Your task to perform on an android device: turn off picture-in-picture Image 0: 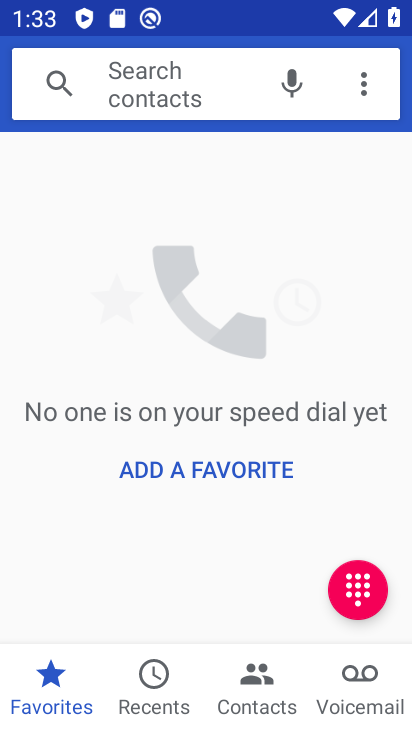
Step 0: press back button
Your task to perform on an android device: turn off picture-in-picture Image 1: 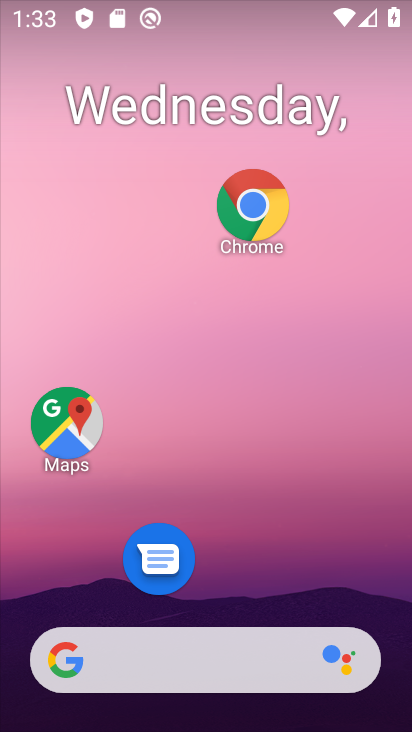
Step 1: click (253, 208)
Your task to perform on an android device: turn off picture-in-picture Image 2: 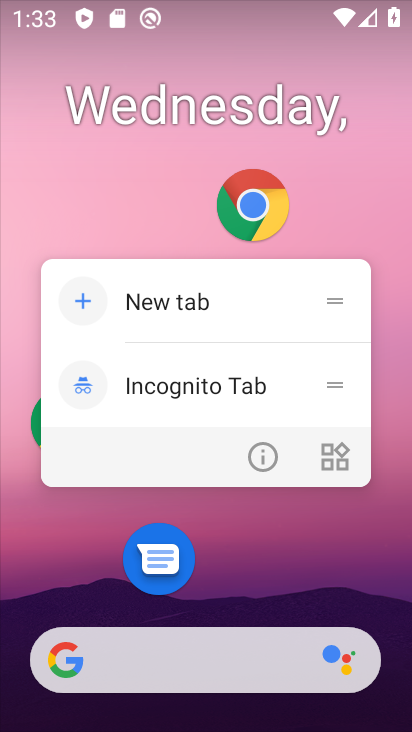
Step 2: click (263, 463)
Your task to perform on an android device: turn off picture-in-picture Image 3: 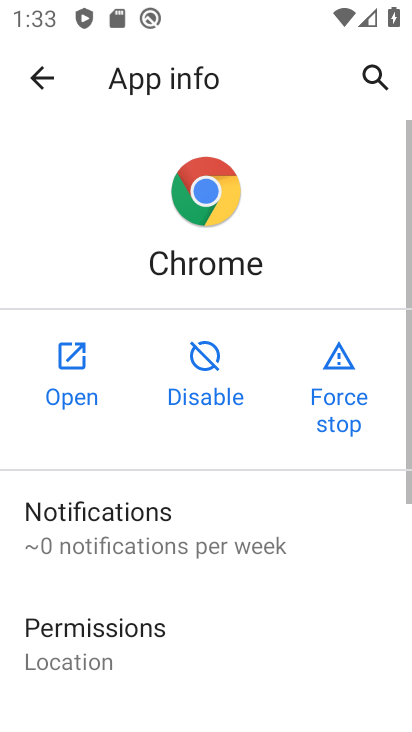
Step 3: drag from (152, 414) to (165, 319)
Your task to perform on an android device: turn off picture-in-picture Image 4: 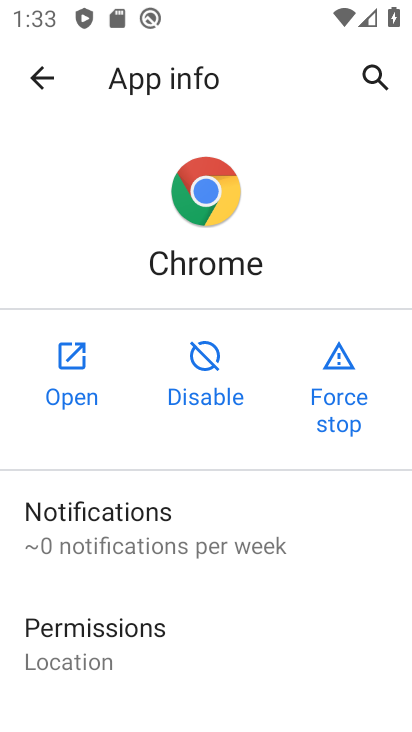
Step 4: drag from (128, 657) to (128, 268)
Your task to perform on an android device: turn off picture-in-picture Image 5: 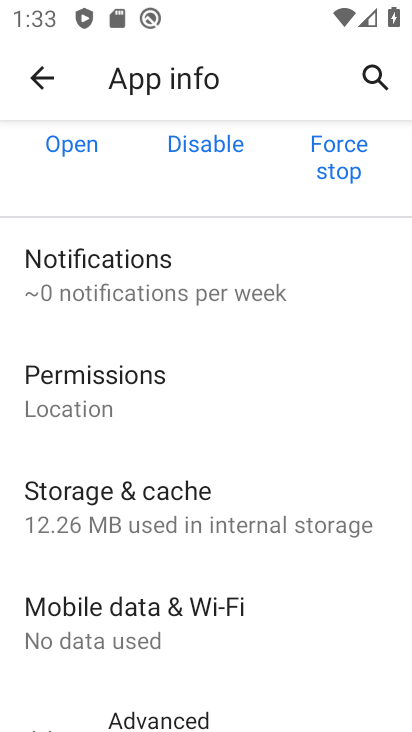
Step 5: drag from (125, 676) to (122, 321)
Your task to perform on an android device: turn off picture-in-picture Image 6: 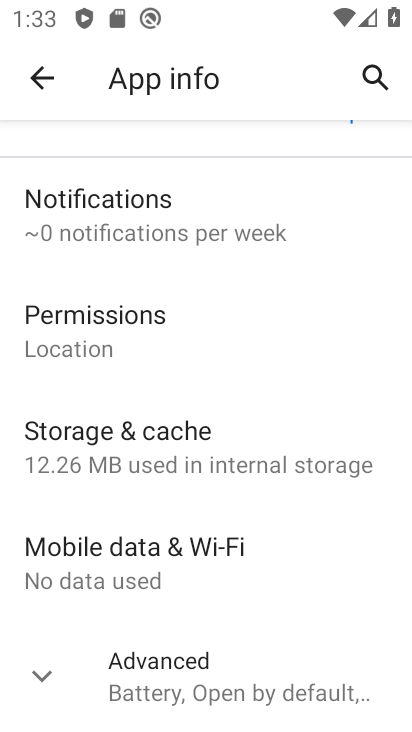
Step 6: click (130, 670)
Your task to perform on an android device: turn off picture-in-picture Image 7: 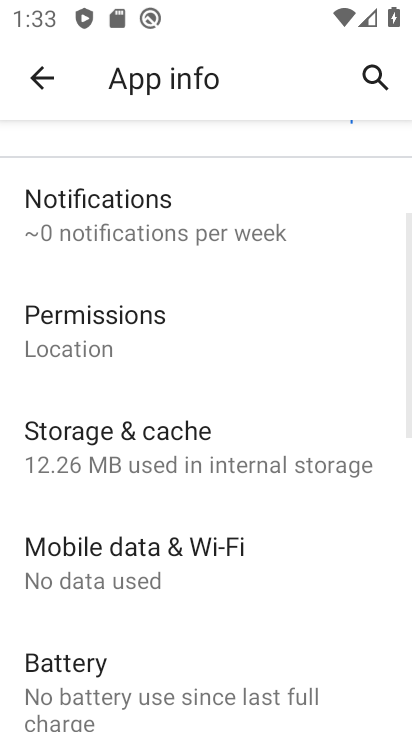
Step 7: drag from (141, 717) to (172, 350)
Your task to perform on an android device: turn off picture-in-picture Image 8: 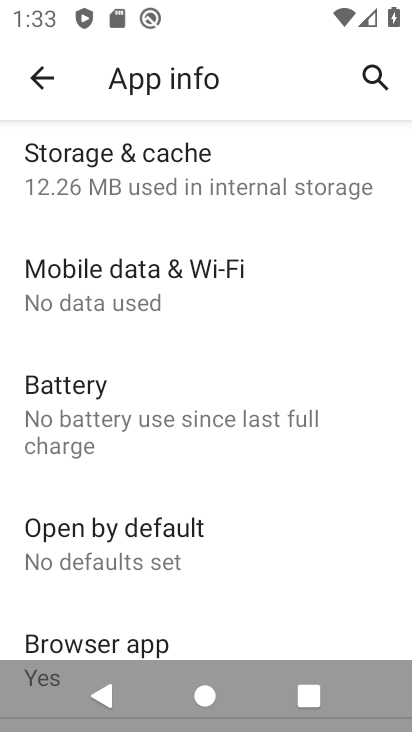
Step 8: drag from (150, 642) to (147, 321)
Your task to perform on an android device: turn off picture-in-picture Image 9: 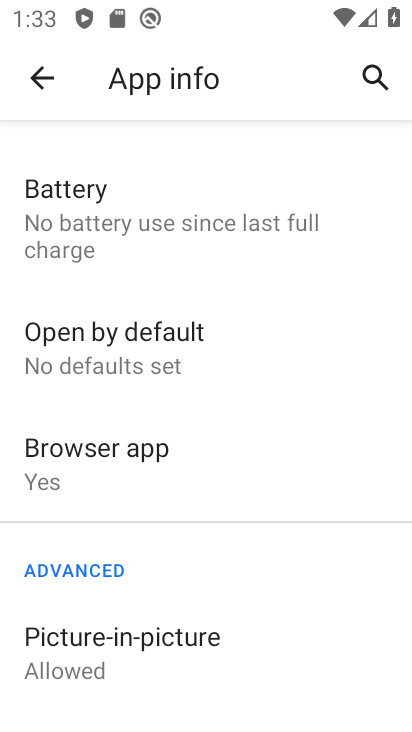
Step 9: drag from (123, 691) to (124, 356)
Your task to perform on an android device: turn off picture-in-picture Image 10: 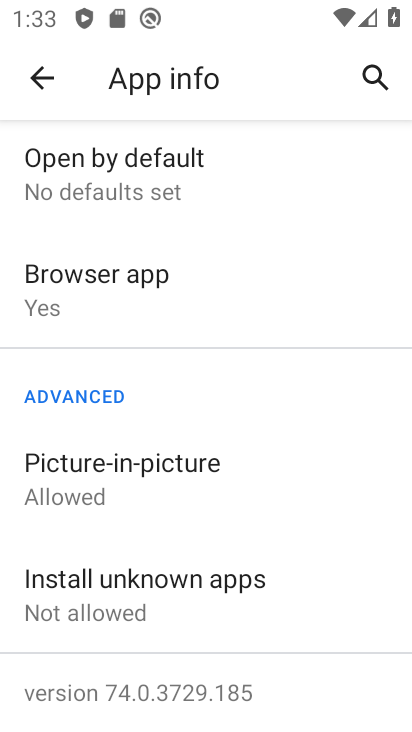
Step 10: click (83, 496)
Your task to perform on an android device: turn off picture-in-picture Image 11: 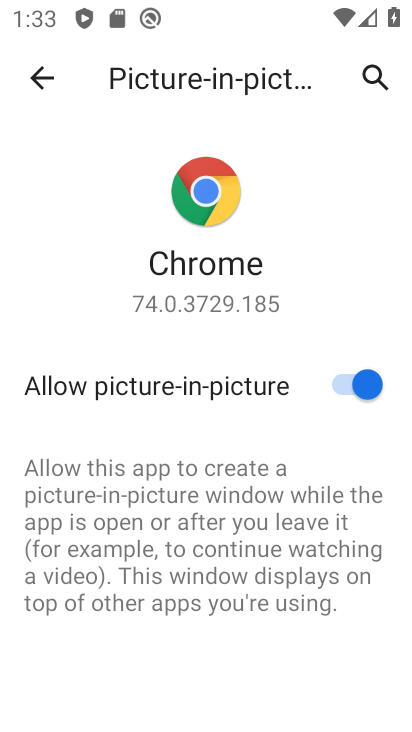
Step 11: click (345, 387)
Your task to perform on an android device: turn off picture-in-picture Image 12: 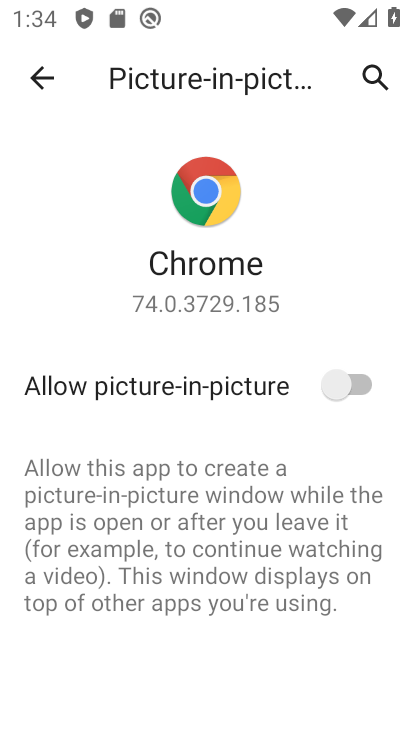
Step 12: task complete